Your task to perform on an android device: stop showing notifications on the lock screen Image 0: 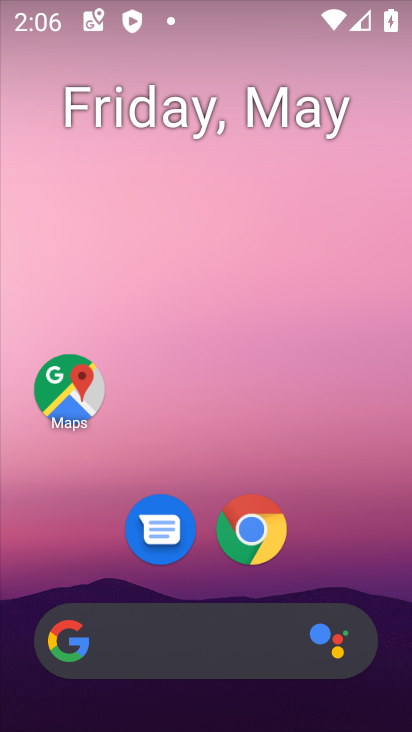
Step 0: click (328, 566)
Your task to perform on an android device: stop showing notifications on the lock screen Image 1: 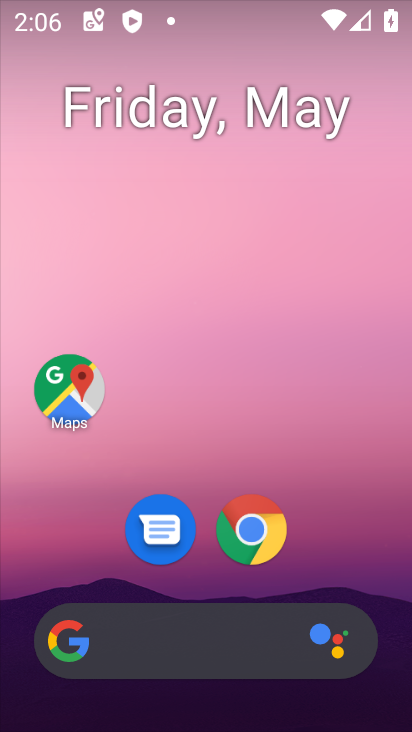
Step 1: drag from (328, 566) to (327, 141)
Your task to perform on an android device: stop showing notifications on the lock screen Image 2: 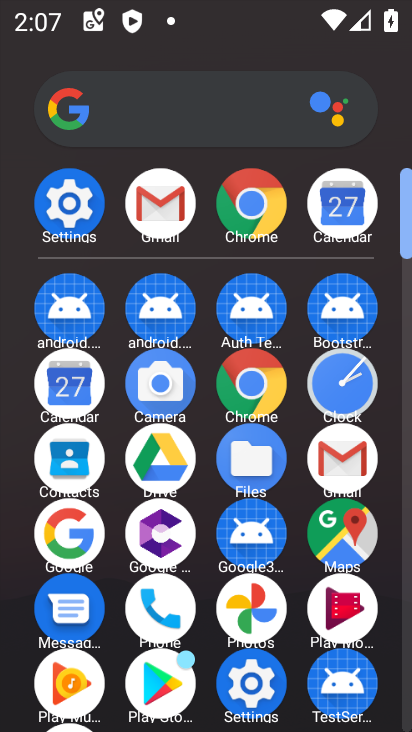
Step 2: click (89, 218)
Your task to perform on an android device: stop showing notifications on the lock screen Image 3: 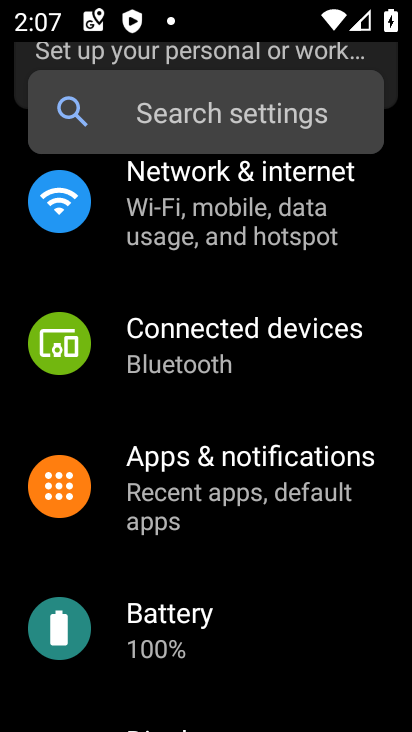
Step 3: click (200, 458)
Your task to perform on an android device: stop showing notifications on the lock screen Image 4: 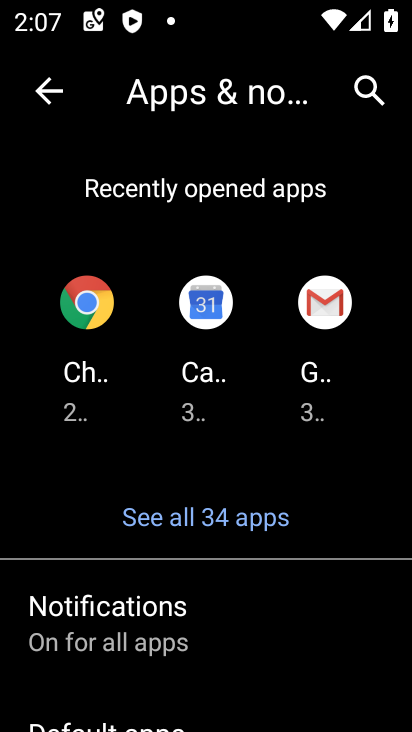
Step 4: drag from (231, 589) to (231, 522)
Your task to perform on an android device: stop showing notifications on the lock screen Image 5: 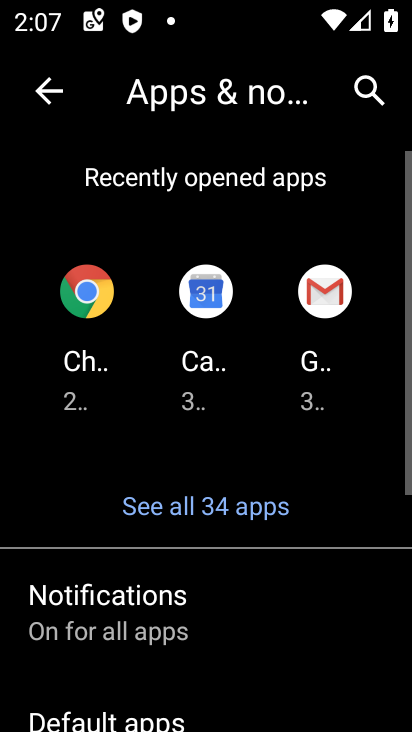
Step 5: drag from (231, 522) to (234, 379)
Your task to perform on an android device: stop showing notifications on the lock screen Image 6: 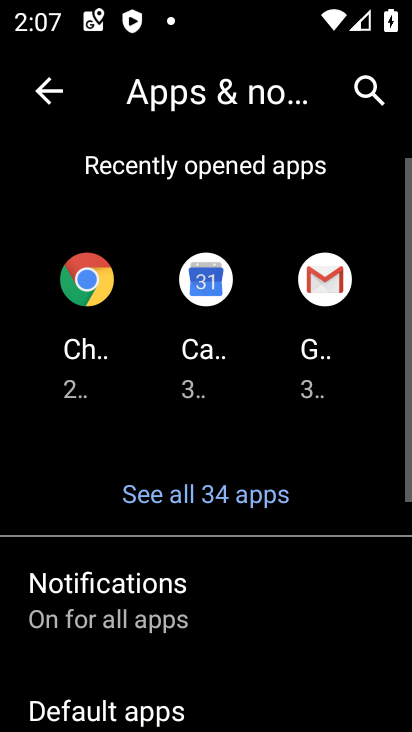
Step 6: click (234, 379)
Your task to perform on an android device: stop showing notifications on the lock screen Image 7: 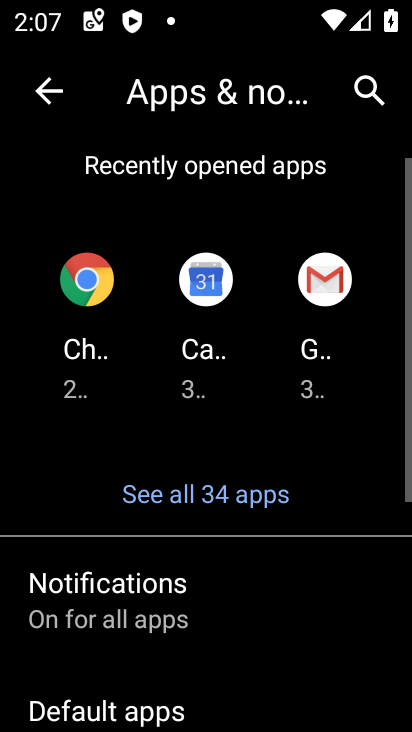
Step 7: click (234, 379)
Your task to perform on an android device: stop showing notifications on the lock screen Image 8: 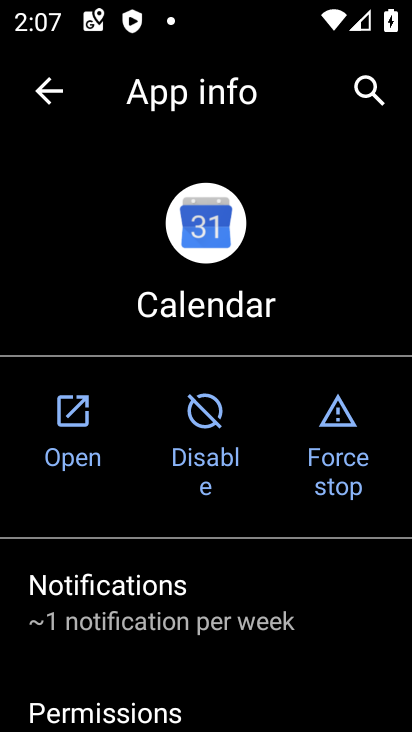
Step 8: task complete